Your task to perform on an android device: Do I have any events this weekend? Image 0: 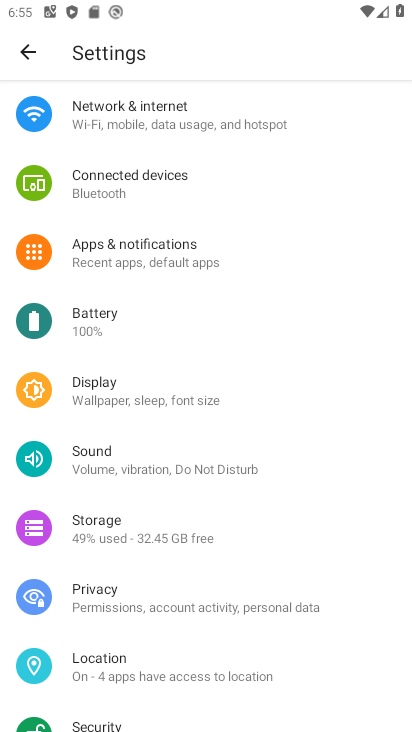
Step 0: press home button
Your task to perform on an android device: Do I have any events this weekend? Image 1: 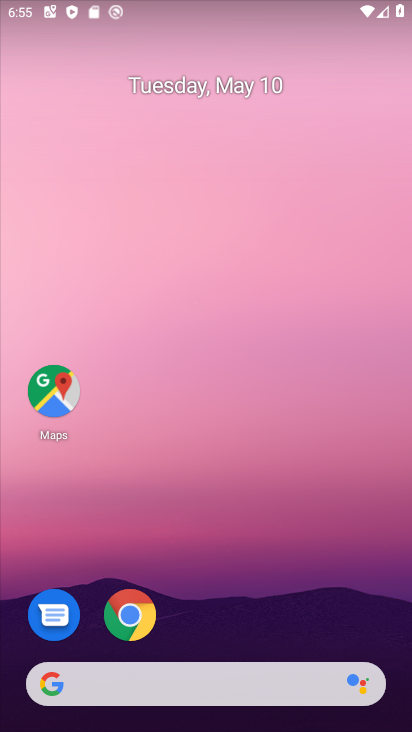
Step 1: drag from (230, 515) to (134, 99)
Your task to perform on an android device: Do I have any events this weekend? Image 2: 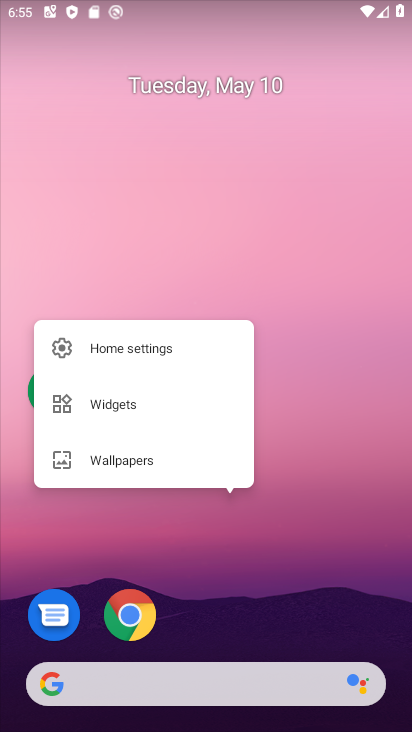
Step 2: click (240, 555)
Your task to perform on an android device: Do I have any events this weekend? Image 3: 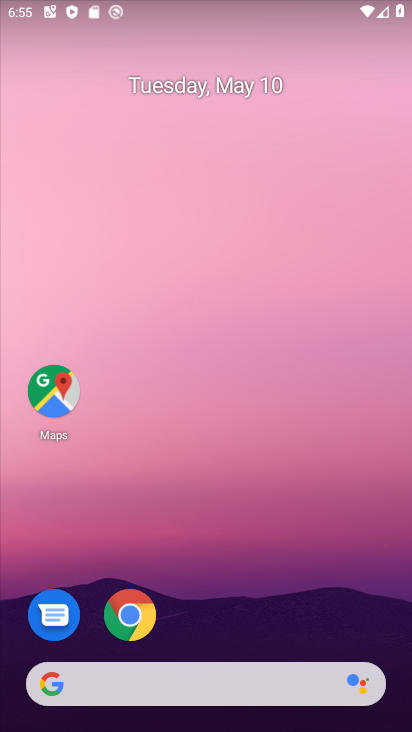
Step 3: click (240, 555)
Your task to perform on an android device: Do I have any events this weekend? Image 4: 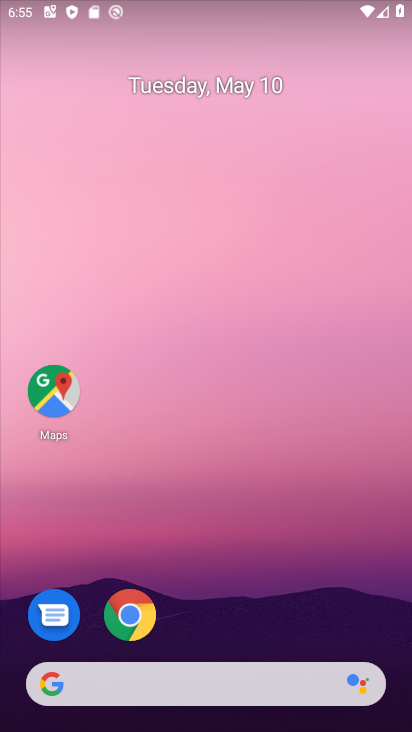
Step 4: drag from (224, 540) to (152, 113)
Your task to perform on an android device: Do I have any events this weekend? Image 5: 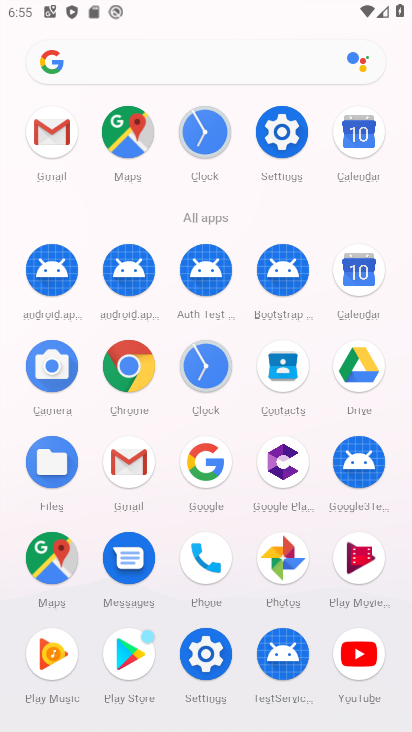
Step 5: click (353, 275)
Your task to perform on an android device: Do I have any events this weekend? Image 6: 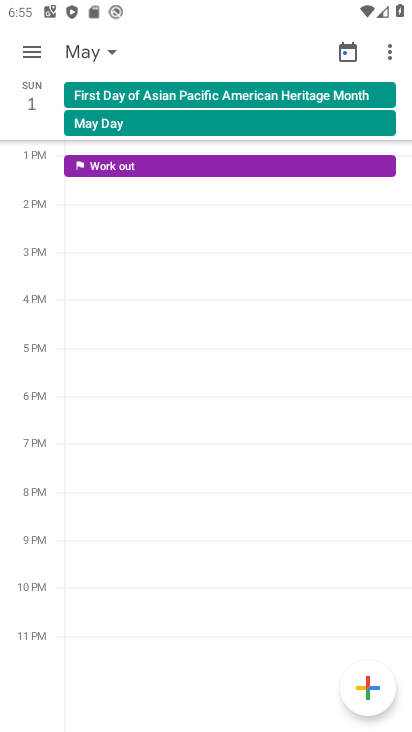
Step 6: click (31, 45)
Your task to perform on an android device: Do I have any events this weekend? Image 7: 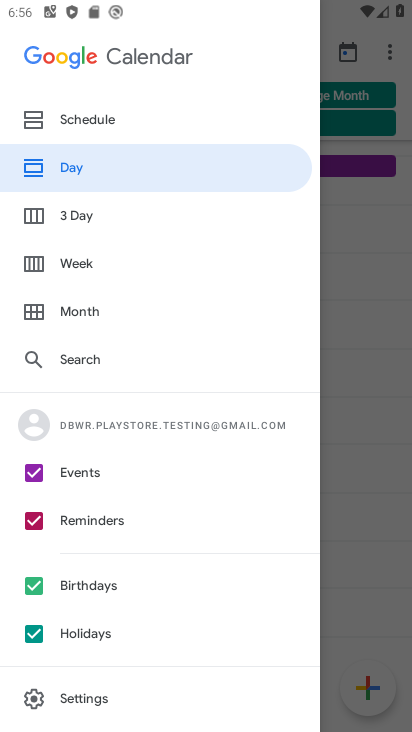
Step 7: click (70, 259)
Your task to perform on an android device: Do I have any events this weekend? Image 8: 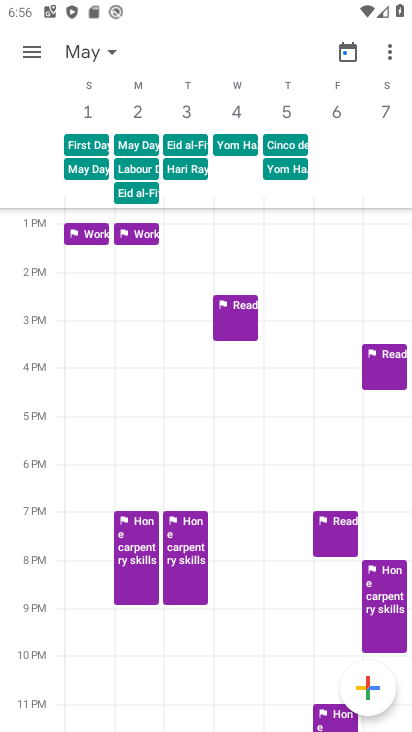
Step 8: task complete